Your task to perform on an android device: see tabs open on other devices in the chrome app Image 0: 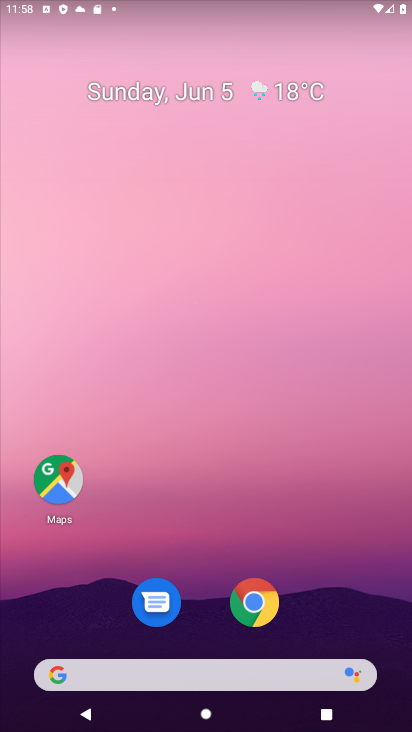
Step 0: click (269, 607)
Your task to perform on an android device: see tabs open on other devices in the chrome app Image 1: 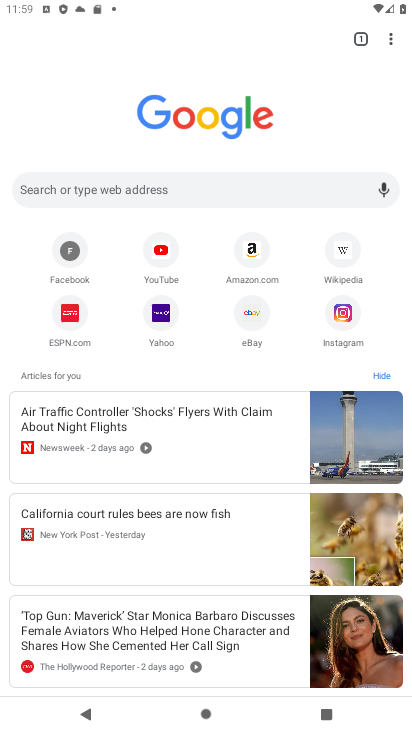
Step 1: click (355, 36)
Your task to perform on an android device: see tabs open on other devices in the chrome app Image 2: 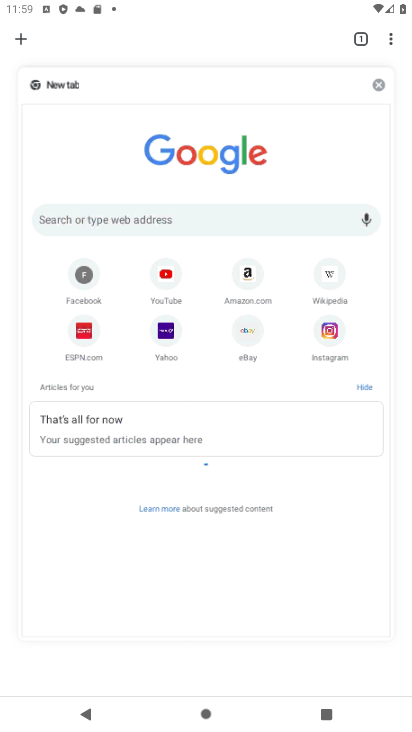
Step 2: click (29, 37)
Your task to perform on an android device: see tabs open on other devices in the chrome app Image 3: 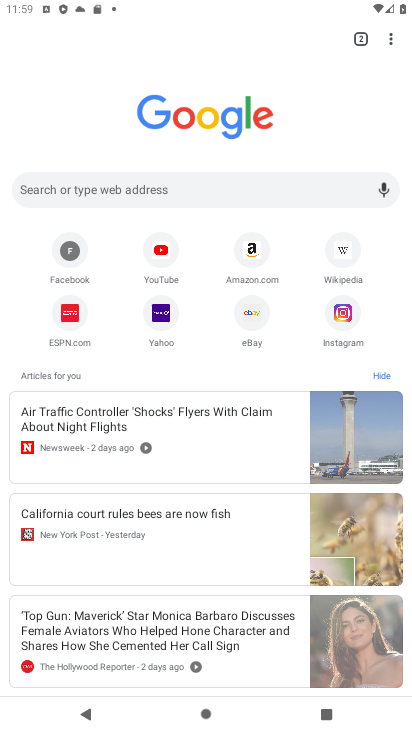
Step 3: task complete